Your task to perform on an android device: turn off priority inbox in the gmail app Image 0: 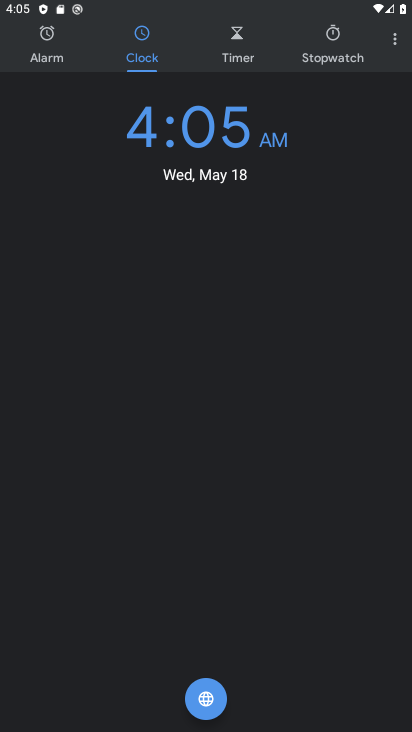
Step 0: press home button
Your task to perform on an android device: turn off priority inbox in the gmail app Image 1: 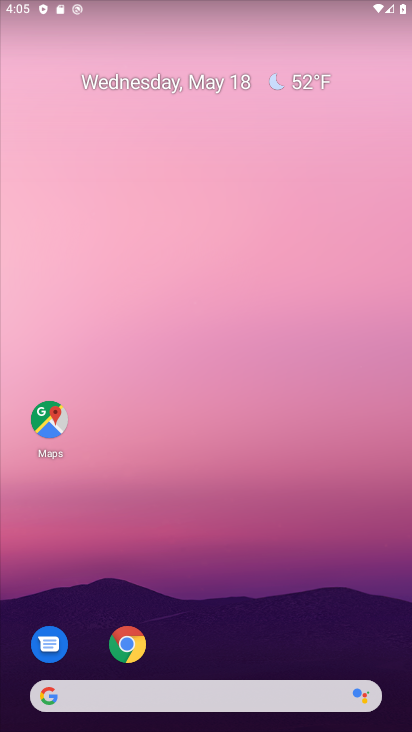
Step 1: drag from (198, 667) to (187, 66)
Your task to perform on an android device: turn off priority inbox in the gmail app Image 2: 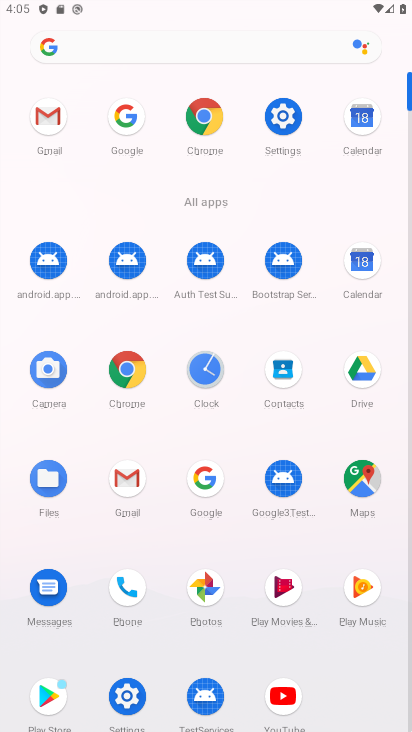
Step 2: click (119, 475)
Your task to perform on an android device: turn off priority inbox in the gmail app Image 3: 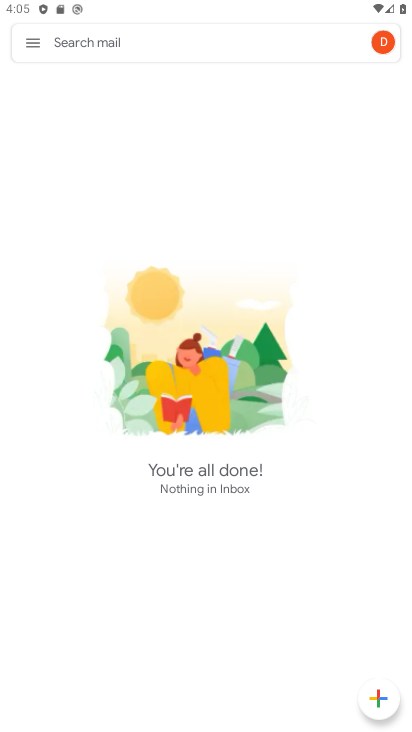
Step 3: click (28, 45)
Your task to perform on an android device: turn off priority inbox in the gmail app Image 4: 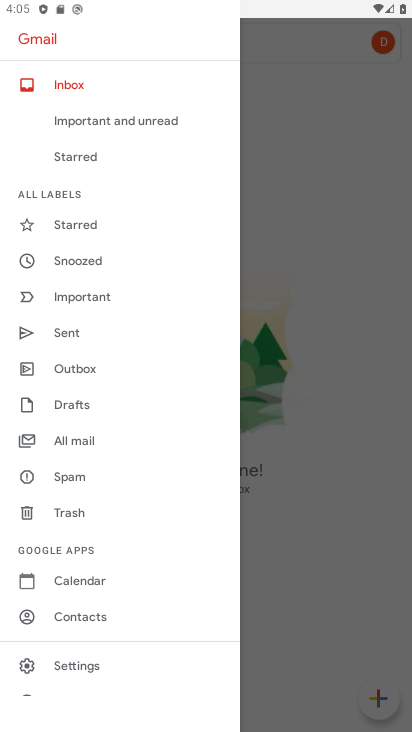
Step 4: click (48, 663)
Your task to perform on an android device: turn off priority inbox in the gmail app Image 5: 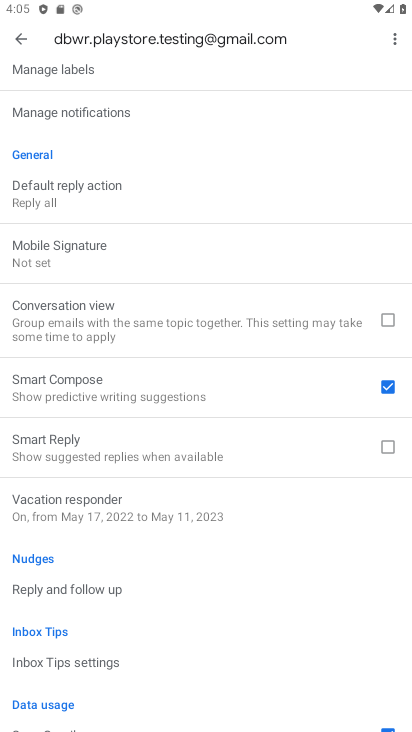
Step 5: drag from (94, 504) to (59, 39)
Your task to perform on an android device: turn off priority inbox in the gmail app Image 6: 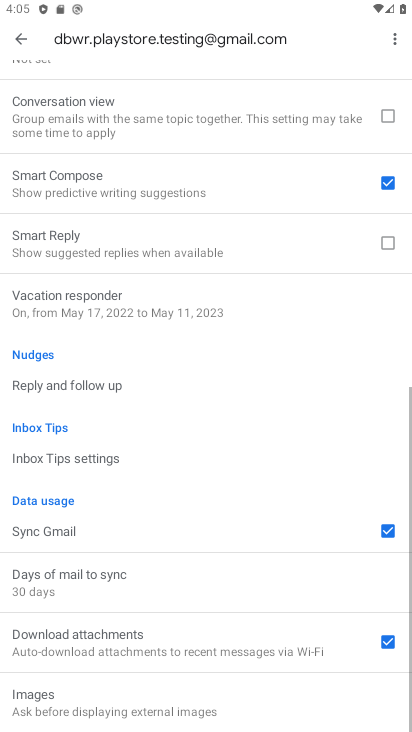
Step 6: drag from (130, 248) to (125, 729)
Your task to perform on an android device: turn off priority inbox in the gmail app Image 7: 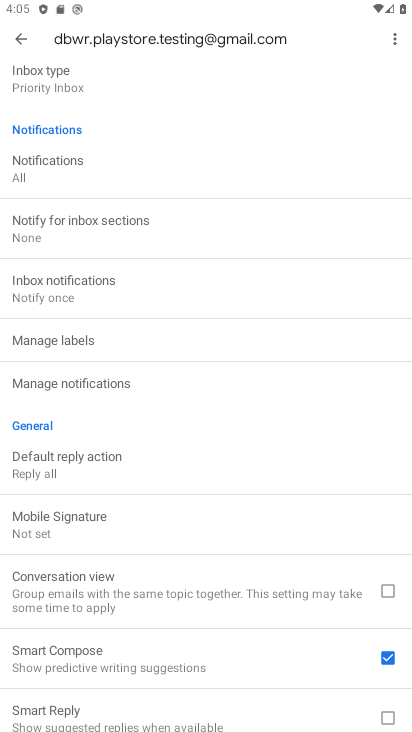
Step 7: drag from (71, 171) to (56, 593)
Your task to perform on an android device: turn off priority inbox in the gmail app Image 8: 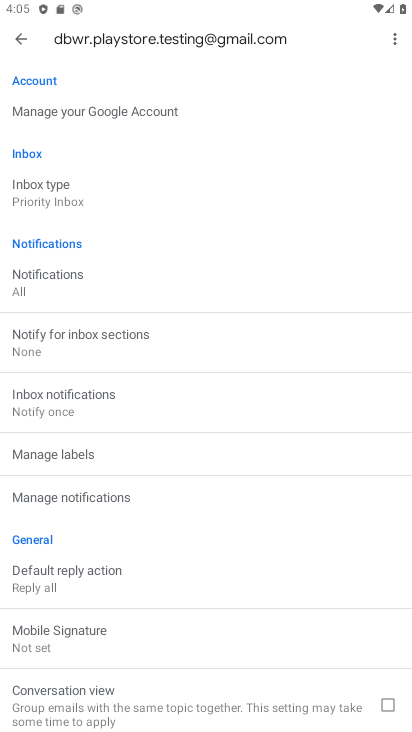
Step 8: click (34, 196)
Your task to perform on an android device: turn off priority inbox in the gmail app Image 9: 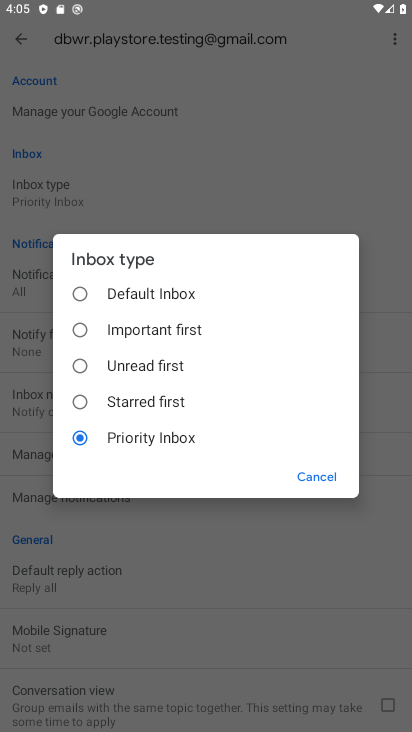
Step 9: task complete